Your task to perform on an android device: turn on data saver in the chrome app Image 0: 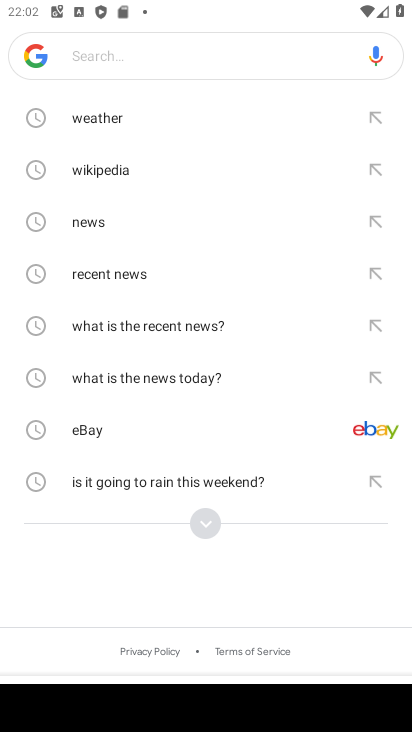
Step 0: press back button
Your task to perform on an android device: turn on data saver in the chrome app Image 1: 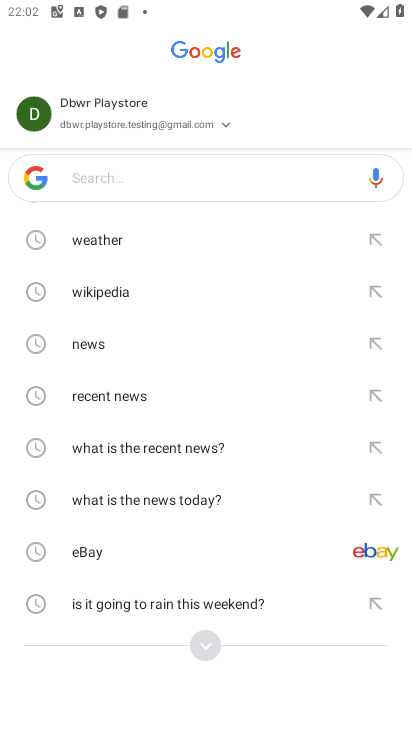
Step 1: press back button
Your task to perform on an android device: turn on data saver in the chrome app Image 2: 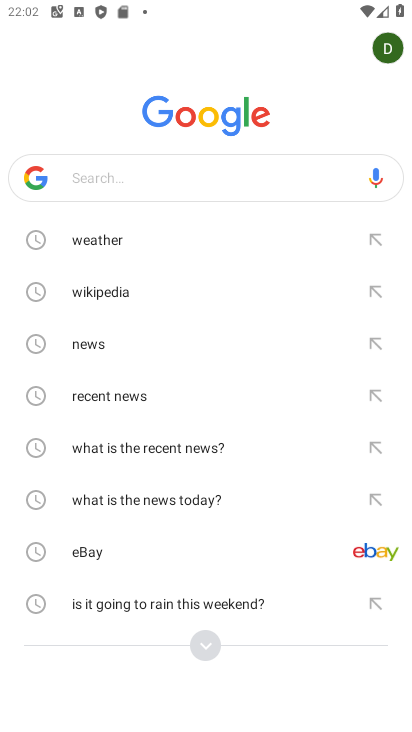
Step 2: press back button
Your task to perform on an android device: turn on data saver in the chrome app Image 3: 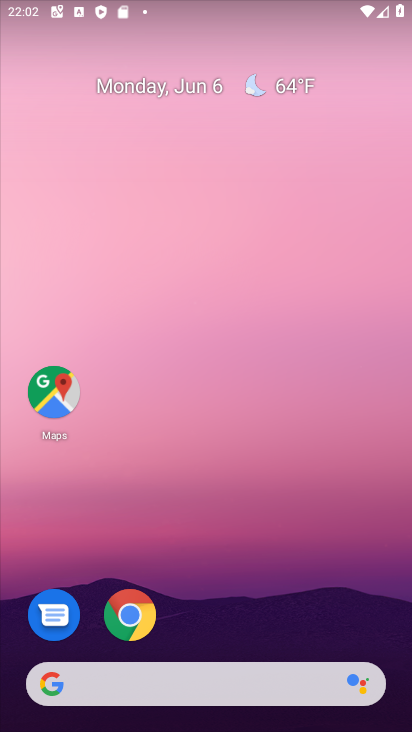
Step 3: click (131, 608)
Your task to perform on an android device: turn on data saver in the chrome app Image 4: 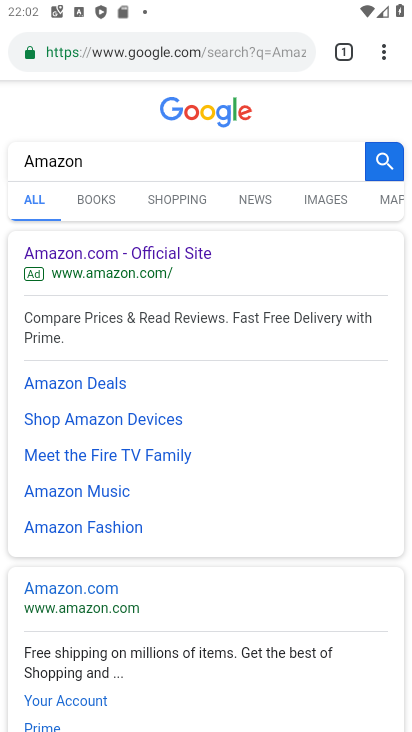
Step 4: click (384, 50)
Your task to perform on an android device: turn on data saver in the chrome app Image 5: 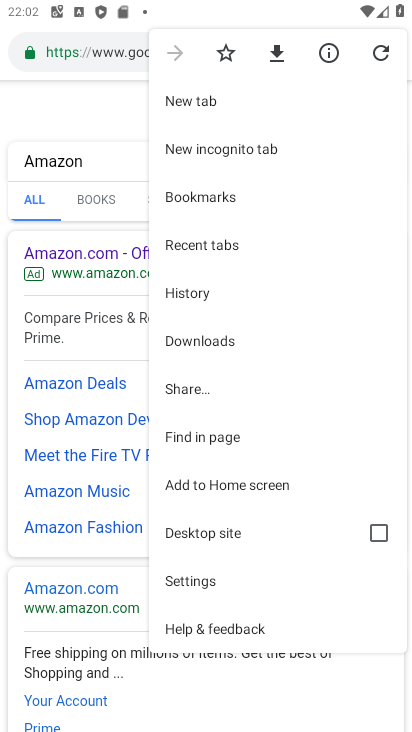
Step 5: click (205, 576)
Your task to perform on an android device: turn on data saver in the chrome app Image 6: 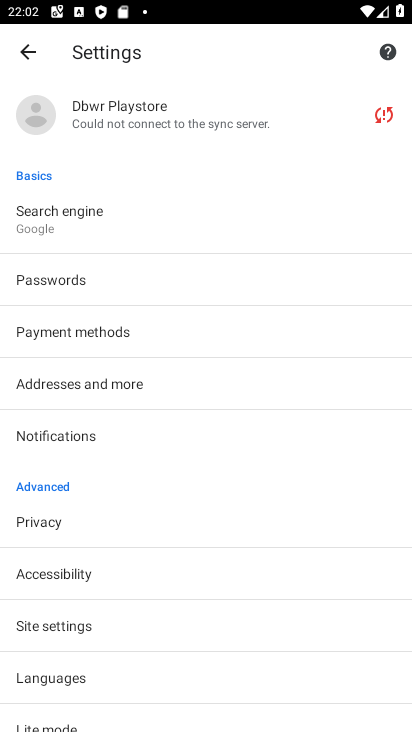
Step 6: click (62, 718)
Your task to perform on an android device: turn on data saver in the chrome app Image 7: 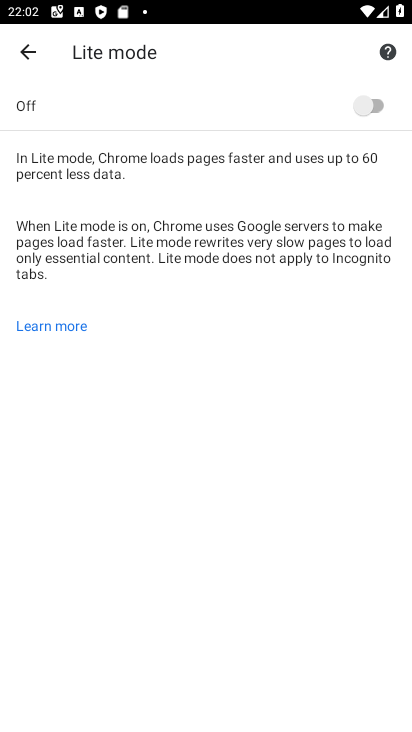
Step 7: click (384, 101)
Your task to perform on an android device: turn on data saver in the chrome app Image 8: 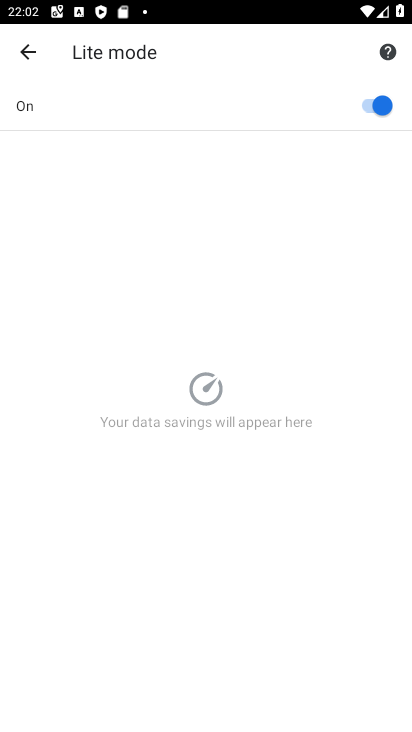
Step 8: task complete